Your task to perform on an android device: Go to accessibility settings Image 0: 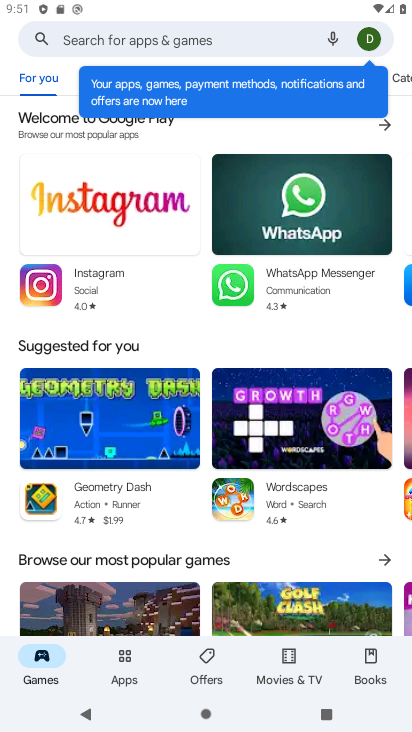
Step 0: press home button
Your task to perform on an android device: Go to accessibility settings Image 1: 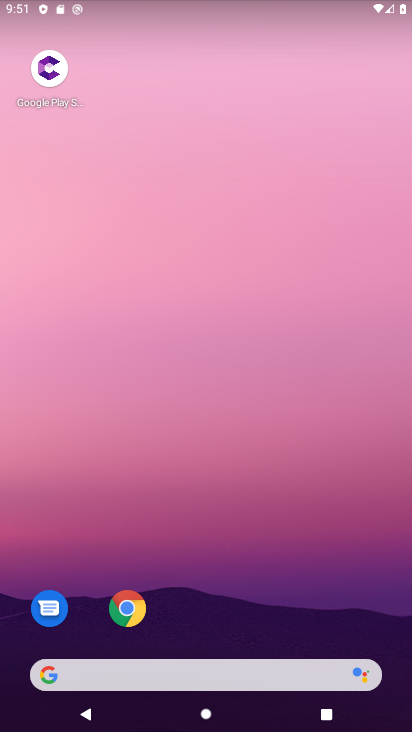
Step 1: drag from (225, 631) to (202, 21)
Your task to perform on an android device: Go to accessibility settings Image 2: 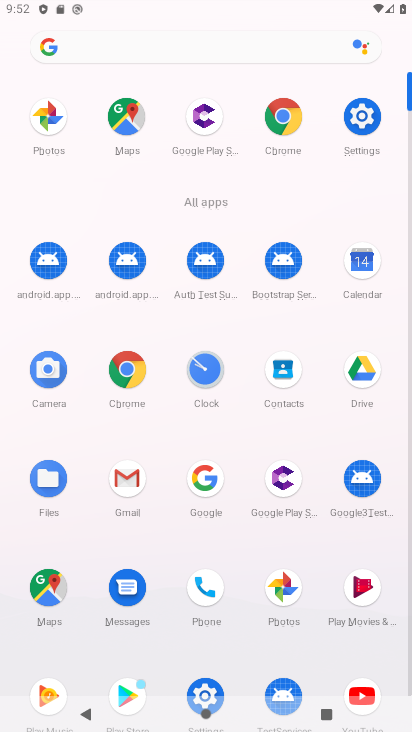
Step 2: drag from (203, 660) to (199, 574)
Your task to perform on an android device: Go to accessibility settings Image 3: 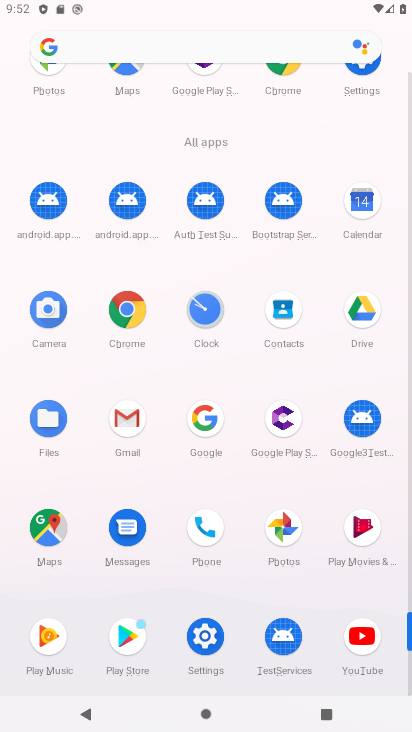
Step 3: click (208, 652)
Your task to perform on an android device: Go to accessibility settings Image 4: 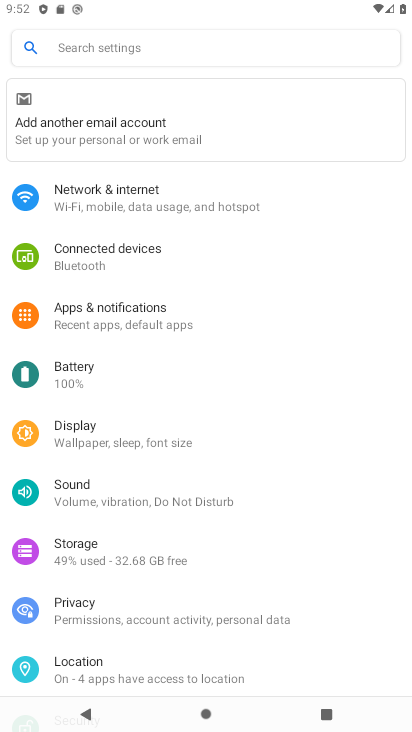
Step 4: click (164, 403)
Your task to perform on an android device: Go to accessibility settings Image 5: 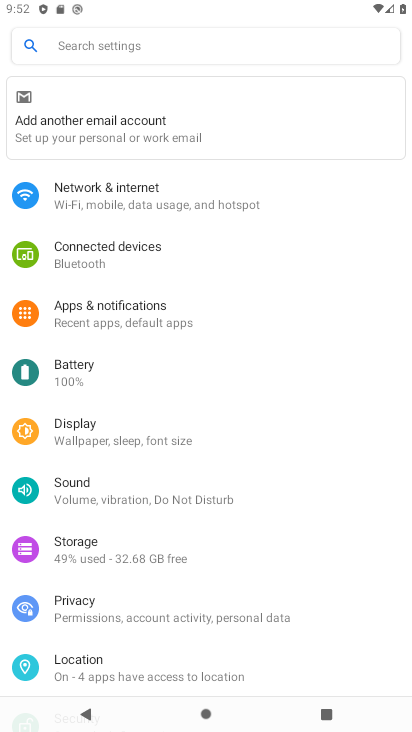
Step 5: drag from (187, 453) to (224, 245)
Your task to perform on an android device: Go to accessibility settings Image 6: 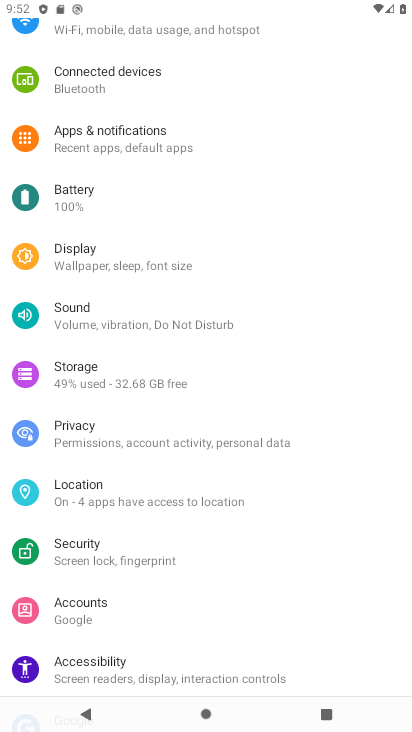
Step 6: click (110, 665)
Your task to perform on an android device: Go to accessibility settings Image 7: 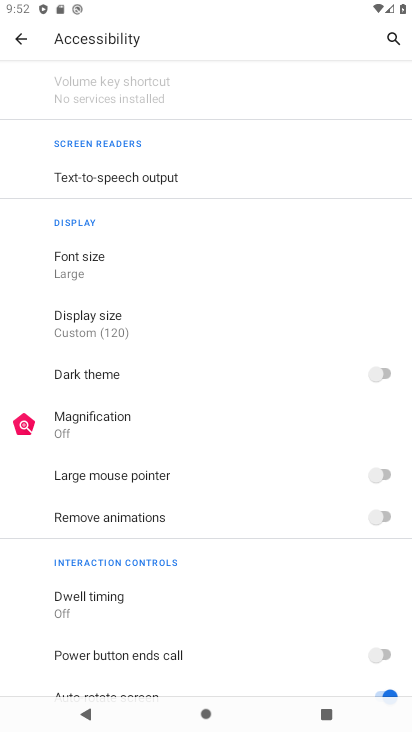
Step 7: task complete